Your task to perform on an android device: check the backup settings in the google photos Image 0: 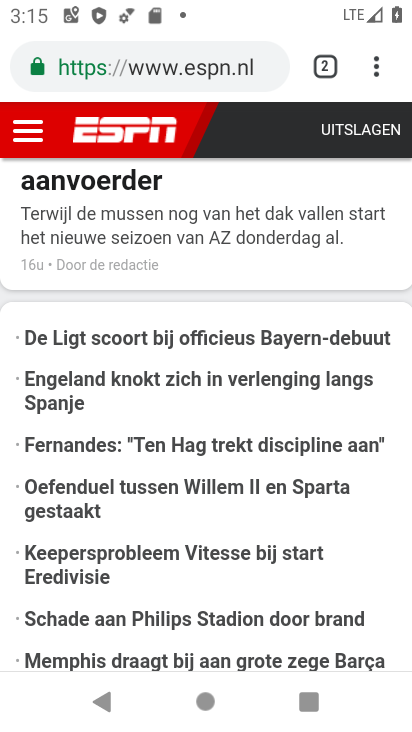
Step 0: press home button
Your task to perform on an android device: check the backup settings in the google photos Image 1: 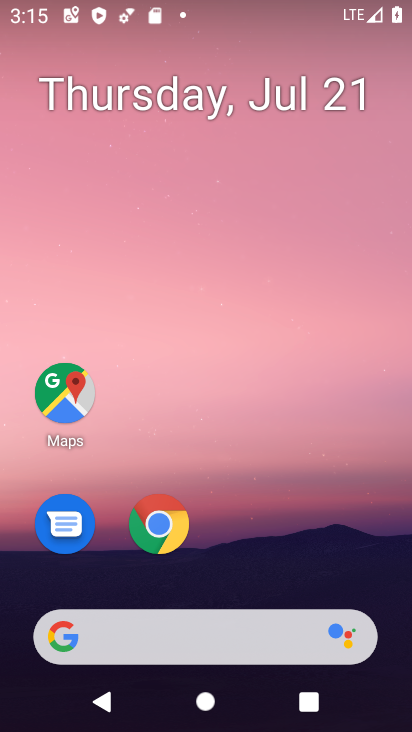
Step 1: drag from (221, 102) to (223, 0)
Your task to perform on an android device: check the backup settings in the google photos Image 2: 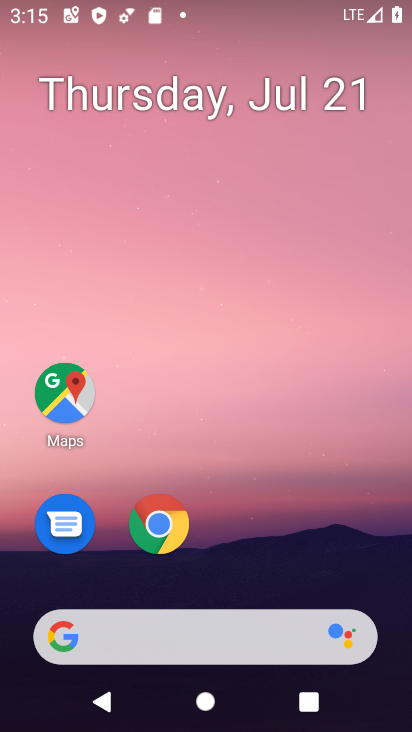
Step 2: drag from (245, 530) to (309, 3)
Your task to perform on an android device: check the backup settings in the google photos Image 3: 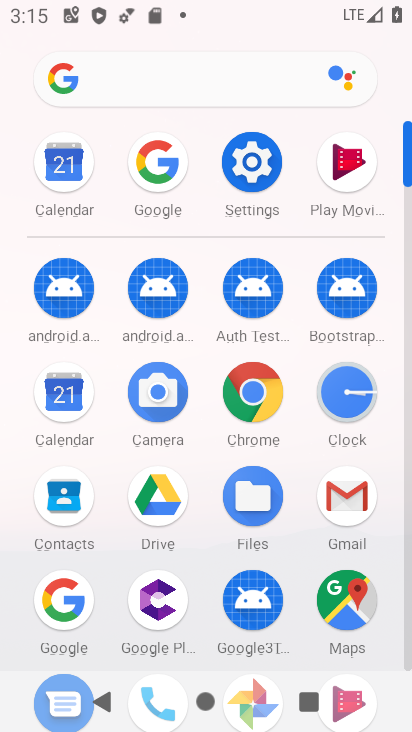
Step 3: drag from (201, 358) to (214, 153)
Your task to perform on an android device: check the backup settings in the google photos Image 4: 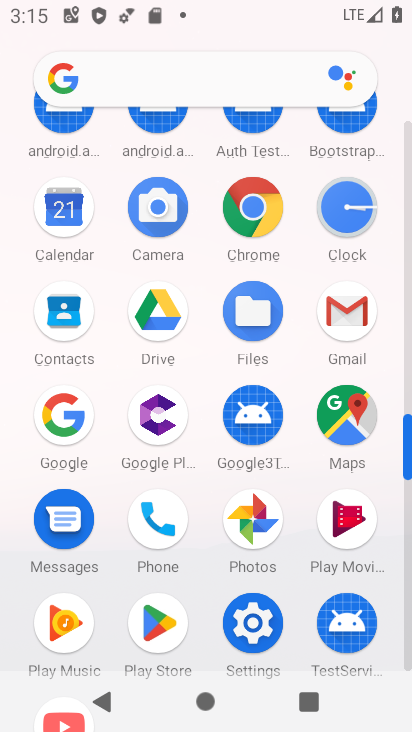
Step 4: click (249, 512)
Your task to perform on an android device: check the backup settings in the google photos Image 5: 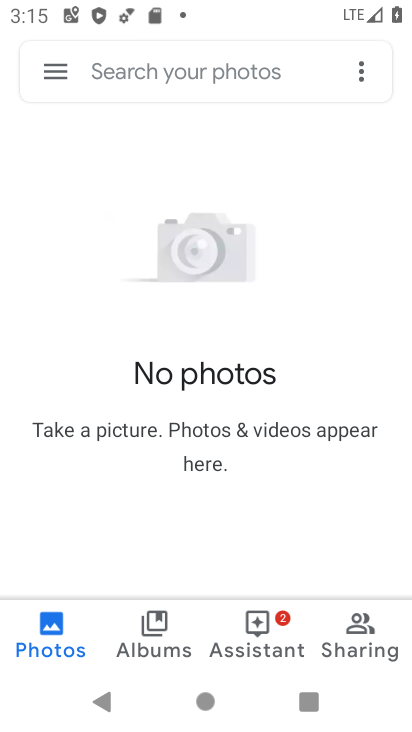
Step 5: click (52, 69)
Your task to perform on an android device: check the backup settings in the google photos Image 6: 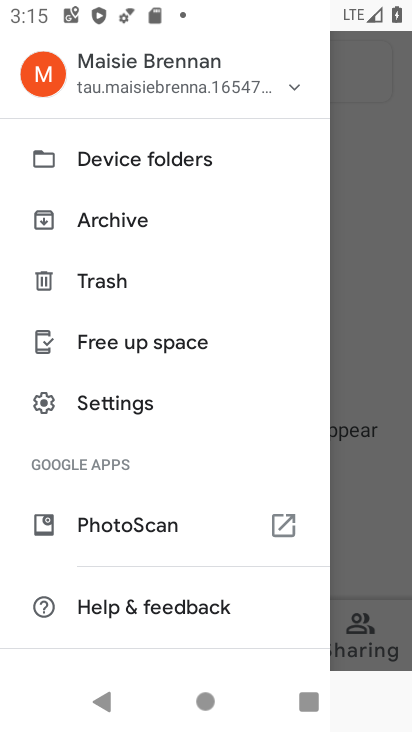
Step 6: click (143, 398)
Your task to perform on an android device: check the backup settings in the google photos Image 7: 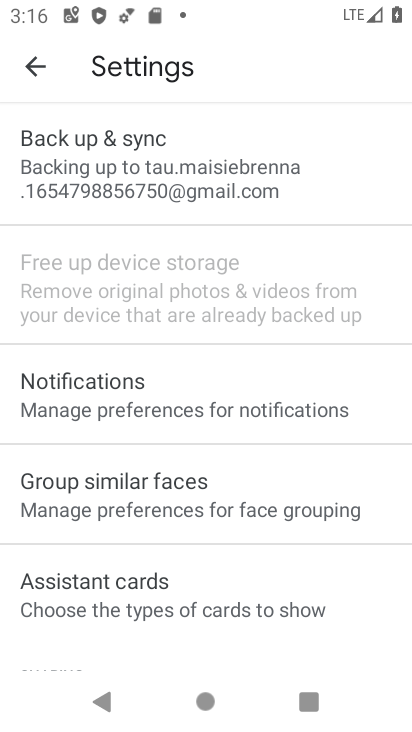
Step 7: click (153, 164)
Your task to perform on an android device: check the backup settings in the google photos Image 8: 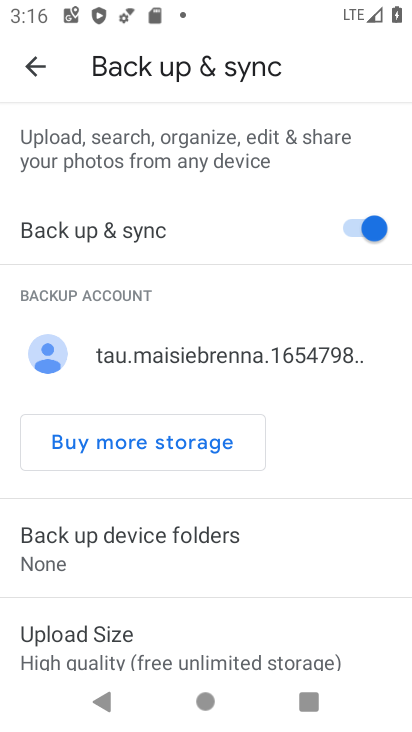
Step 8: task complete